Your task to perform on an android device: What's the weather today? Image 0: 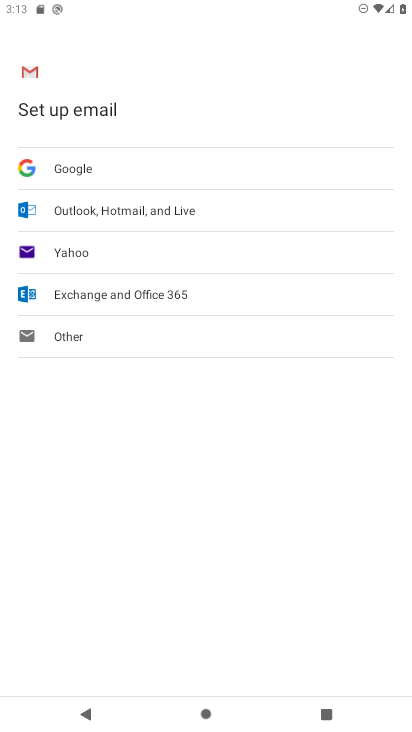
Step 0: press home button
Your task to perform on an android device: What's the weather today? Image 1: 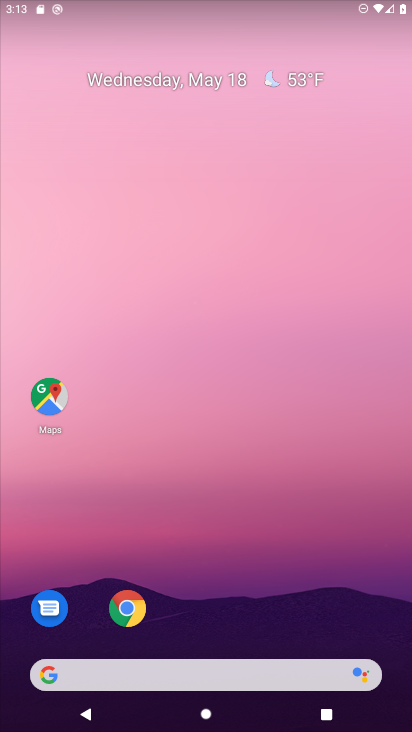
Step 1: drag from (176, 641) to (214, 424)
Your task to perform on an android device: What's the weather today? Image 2: 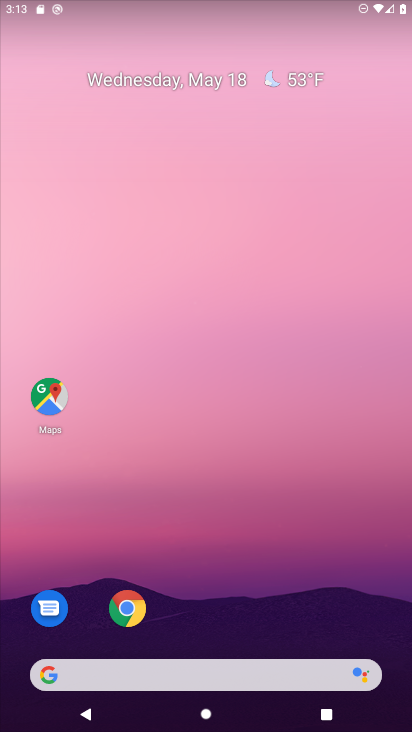
Step 2: drag from (173, 664) to (186, 325)
Your task to perform on an android device: What's the weather today? Image 3: 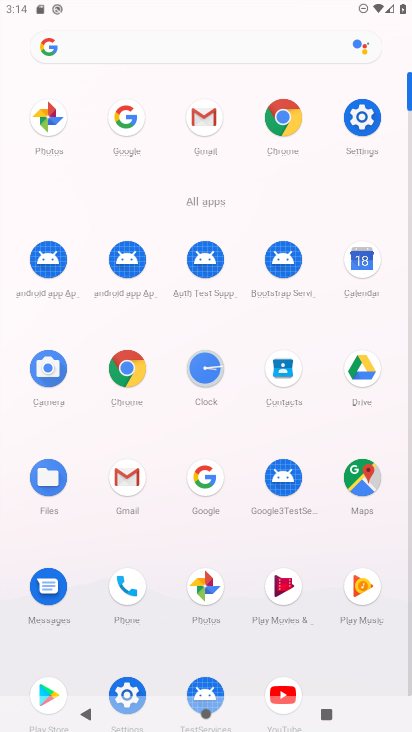
Step 3: click (138, 477)
Your task to perform on an android device: What's the weather today? Image 4: 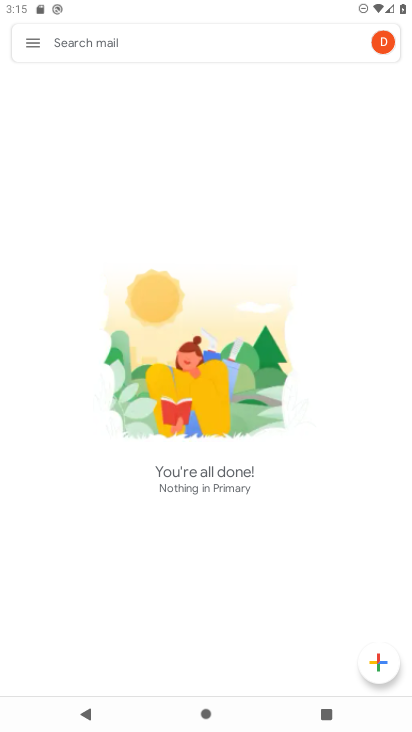
Step 4: press home button
Your task to perform on an android device: What's the weather today? Image 5: 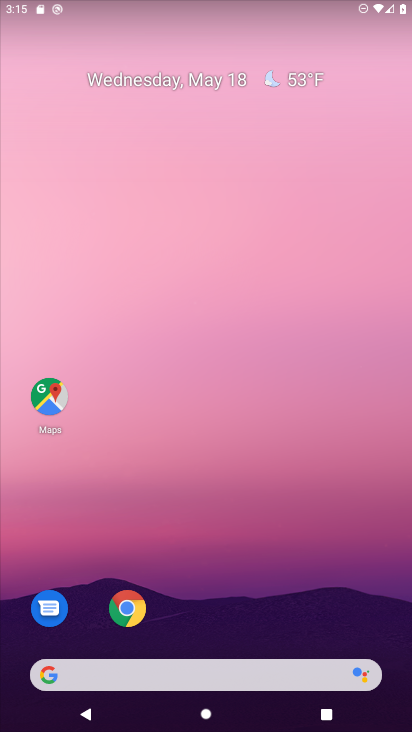
Step 5: drag from (129, 657) to (181, 291)
Your task to perform on an android device: What's the weather today? Image 6: 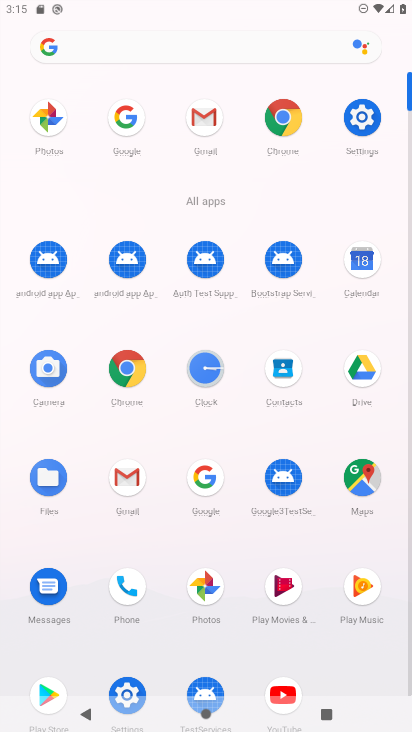
Step 6: click (134, 111)
Your task to perform on an android device: What's the weather today? Image 7: 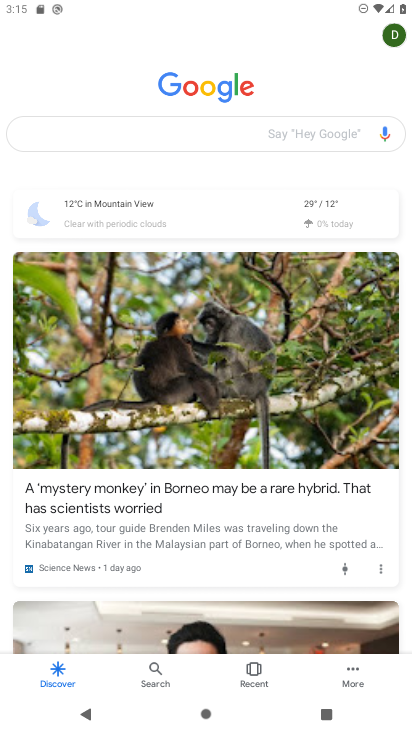
Step 7: click (113, 137)
Your task to perform on an android device: What's the weather today? Image 8: 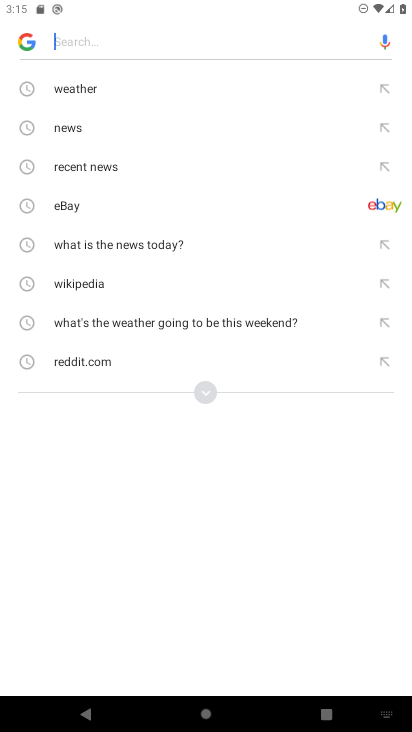
Step 8: click (99, 88)
Your task to perform on an android device: What's the weather today? Image 9: 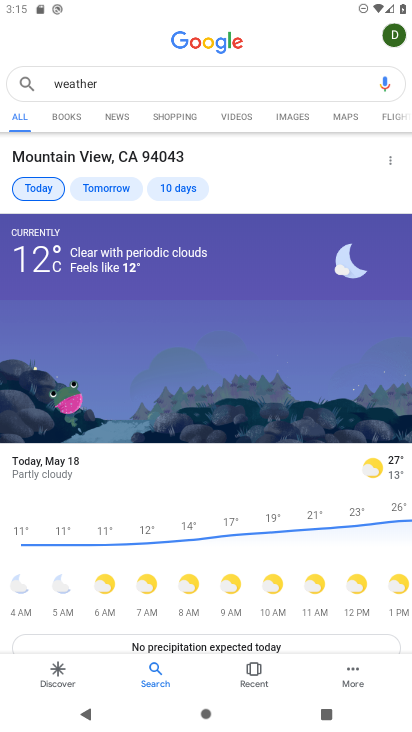
Step 9: task complete